Your task to perform on an android device: change keyboard looks Image 0: 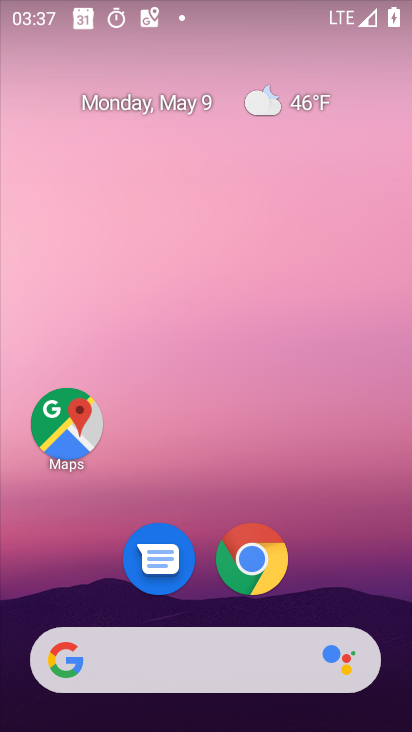
Step 0: drag from (232, 507) to (234, 63)
Your task to perform on an android device: change keyboard looks Image 1: 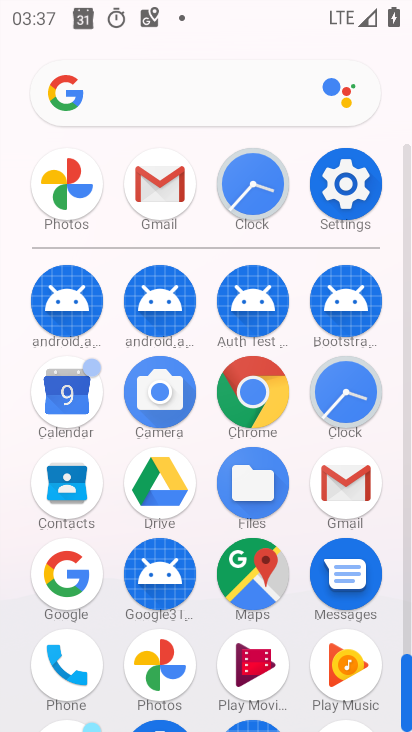
Step 1: click (348, 180)
Your task to perform on an android device: change keyboard looks Image 2: 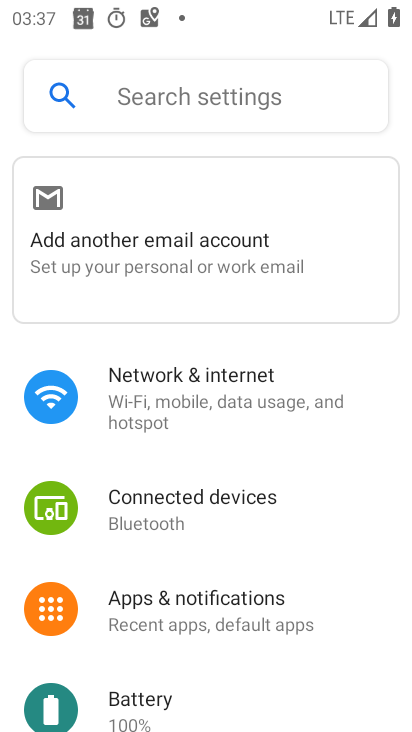
Step 2: drag from (203, 543) to (255, 355)
Your task to perform on an android device: change keyboard looks Image 3: 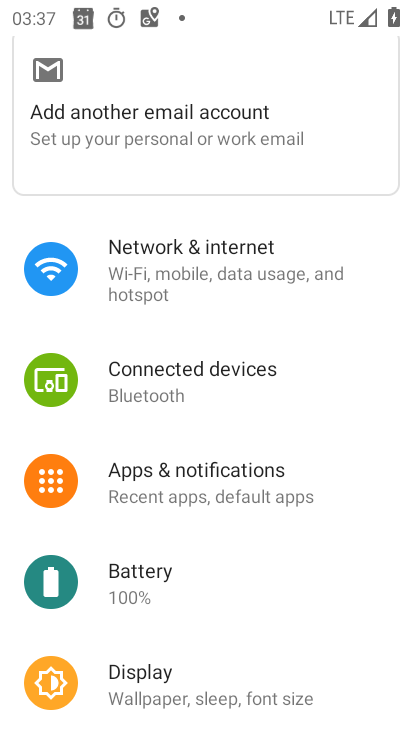
Step 3: drag from (240, 549) to (266, 345)
Your task to perform on an android device: change keyboard looks Image 4: 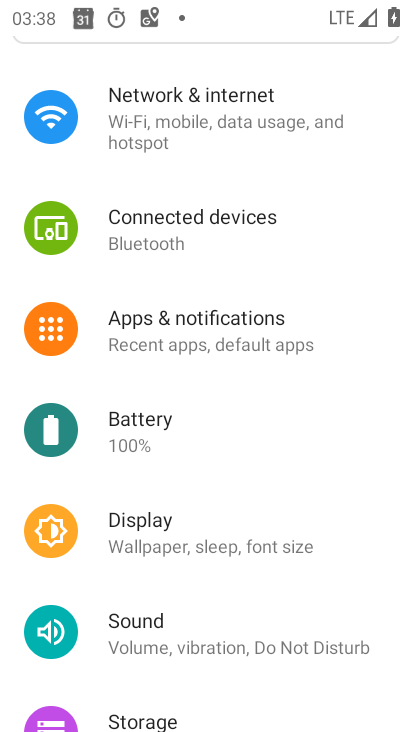
Step 4: drag from (226, 424) to (281, 267)
Your task to perform on an android device: change keyboard looks Image 5: 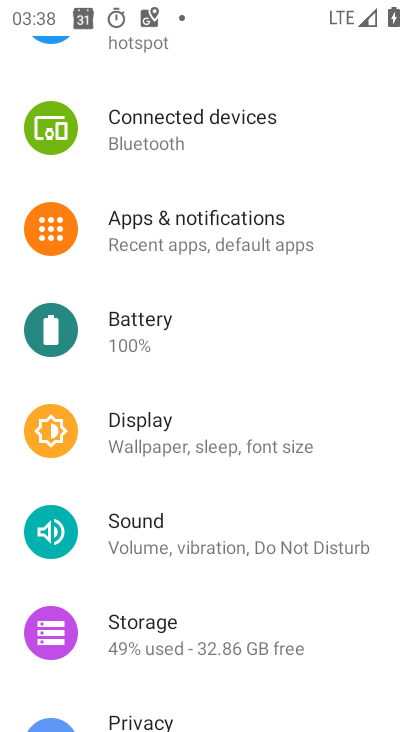
Step 5: drag from (185, 392) to (262, 254)
Your task to perform on an android device: change keyboard looks Image 6: 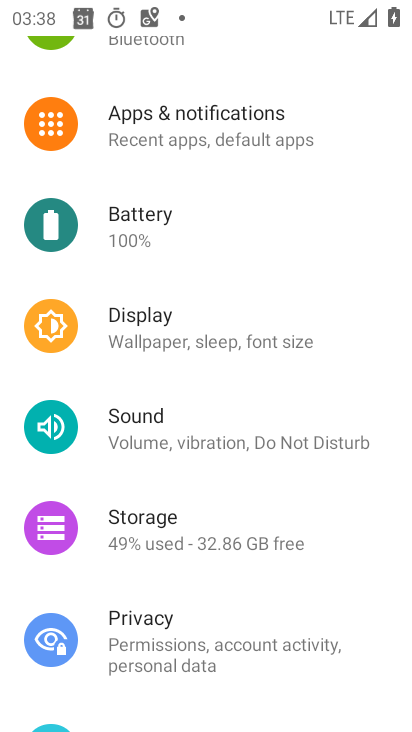
Step 6: drag from (220, 460) to (283, 308)
Your task to perform on an android device: change keyboard looks Image 7: 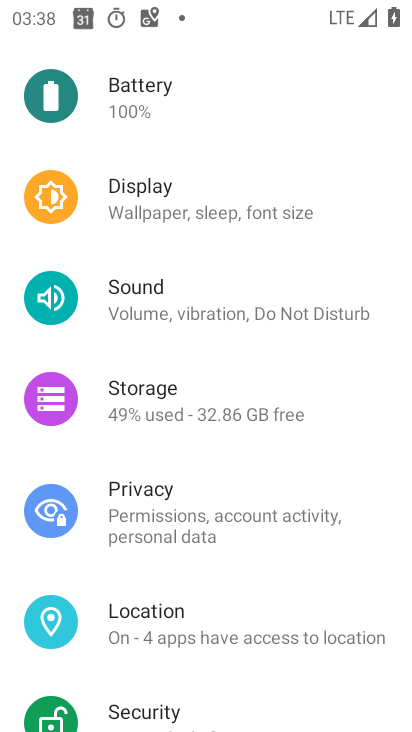
Step 7: drag from (207, 605) to (305, 403)
Your task to perform on an android device: change keyboard looks Image 8: 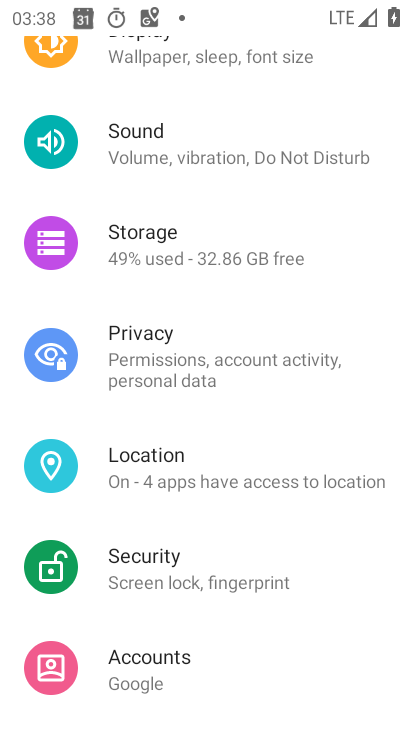
Step 8: drag from (212, 620) to (236, 433)
Your task to perform on an android device: change keyboard looks Image 9: 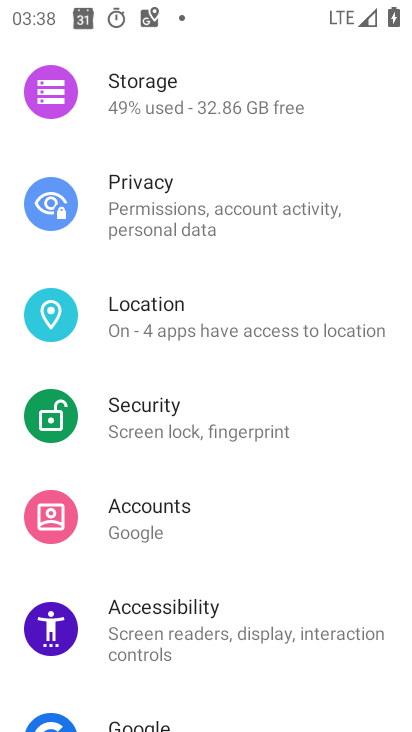
Step 9: drag from (220, 568) to (296, 428)
Your task to perform on an android device: change keyboard looks Image 10: 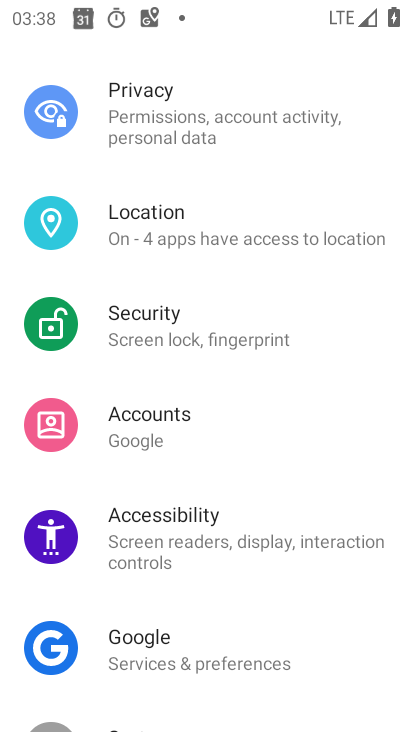
Step 10: drag from (208, 584) to (277, 465)
Your task to perform on an android device: change keyboard looks Image 11: 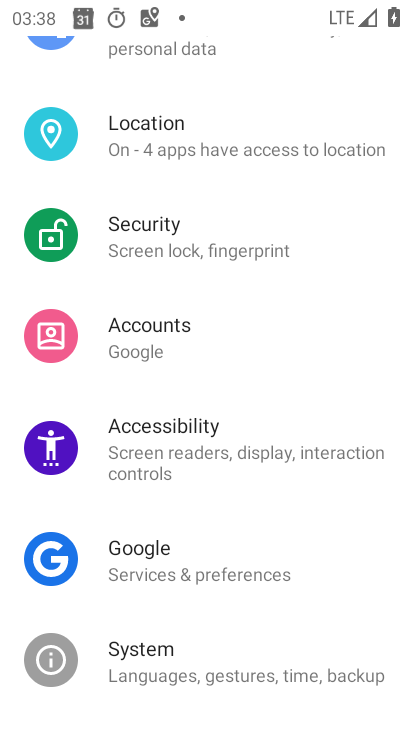
Step 11: click (151, 651)
Your task to perform on an android device: change keyboard looks Image 12: 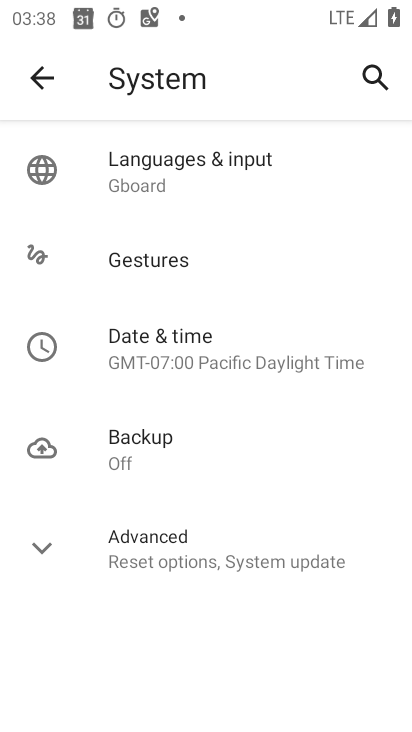
Step 12: click (242, 155)
Your task to perform on an android device: change keyboard looks Image 13: 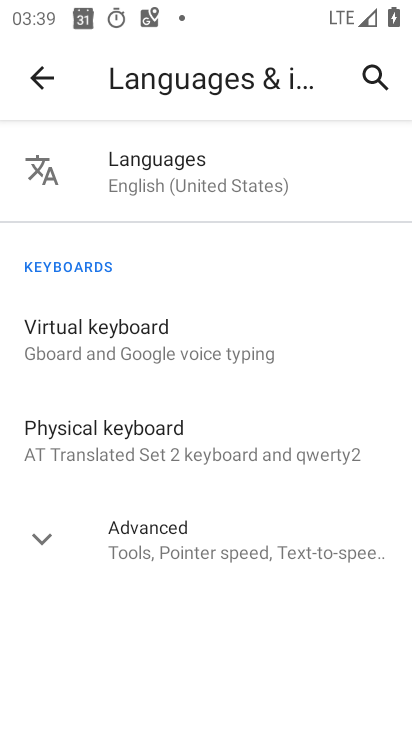
Step 13: click (104, 316)
Your task to perform on an android device: change keyboard looks Image 14: 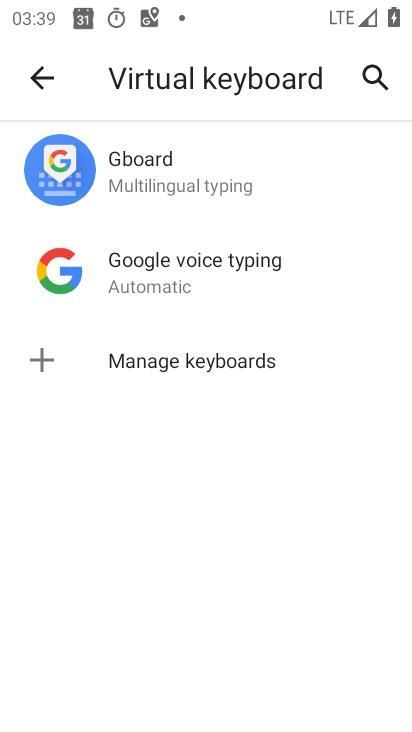
Step 14: click (134, 166)
Your task to perform on an android device: change keyboard looks Image 15: 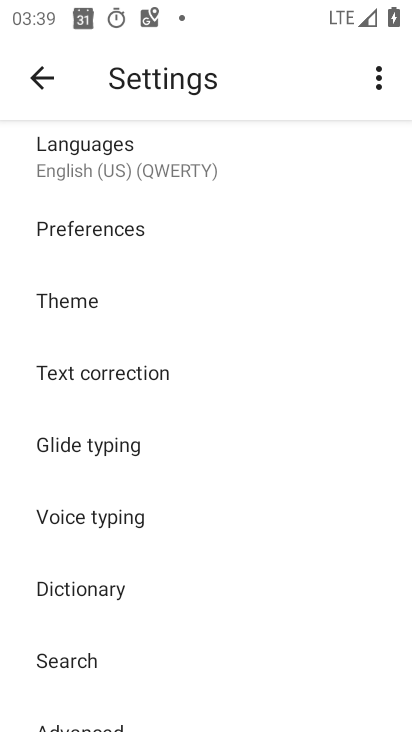
Step 15: click (44, 305)
Your task to perform on an android device: change keyboard looks Image 16: 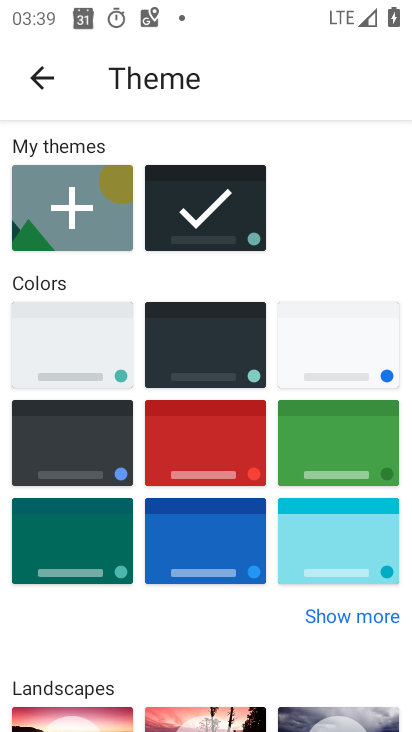
Step 16: click (320, 433)
Your task to perform on an android device: change keyboard looks Image 17: 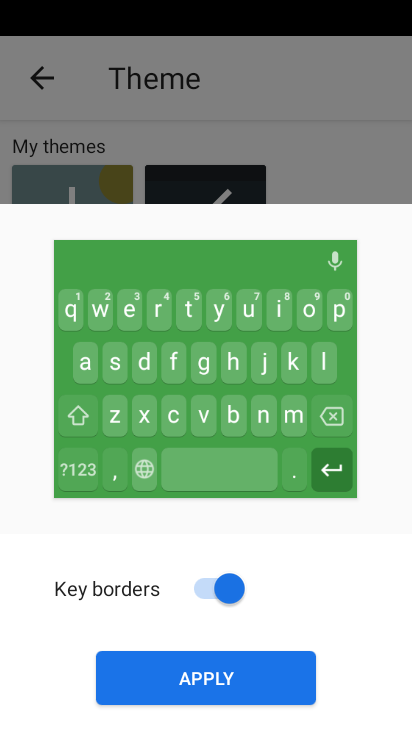
Step 17: click (240, 683)
Your task to perform on an android device: change keyboard looks Image 18: 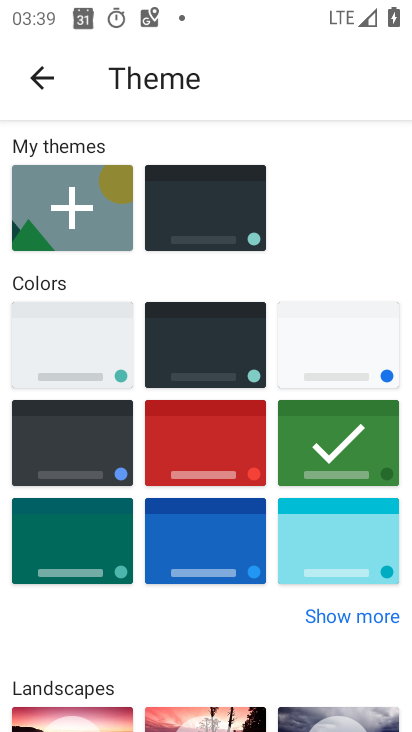
Step 18: task complete